Your task to perform on an android device: toggle data saver in the chrome app Image 0: 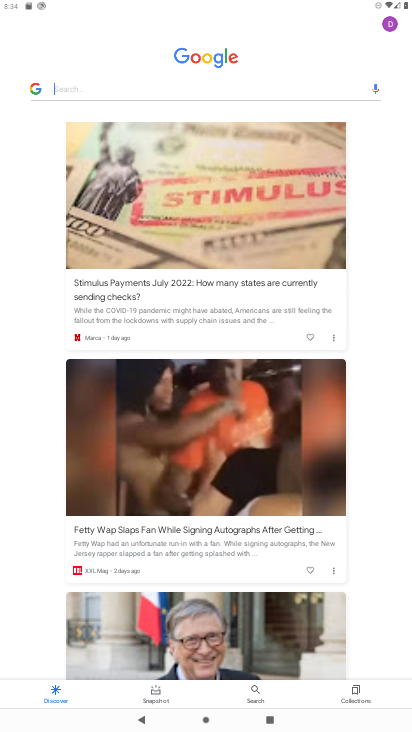
Step 0: drag from (230, 698) to (167, 159)
Your task to perform on an android device: toggle data saver in the chrome app Image 1: 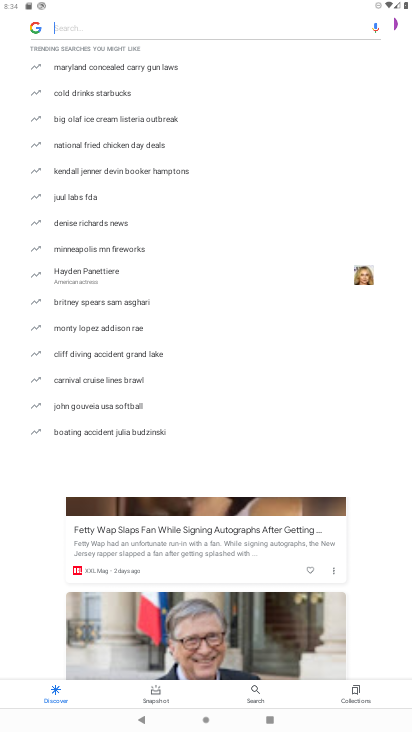
Step 1: press back button
Your task to perform on an android device: toggle data saver in the chrome app Image 2: 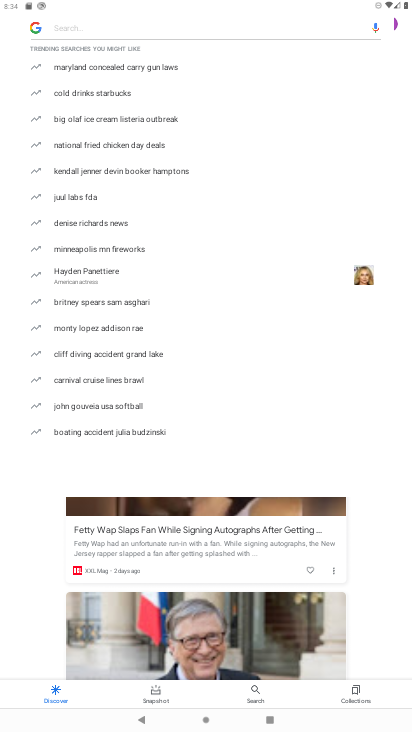
Step 2: press back button
Your task to perform on an android device: toggle data saver in the chrome app Image 3: 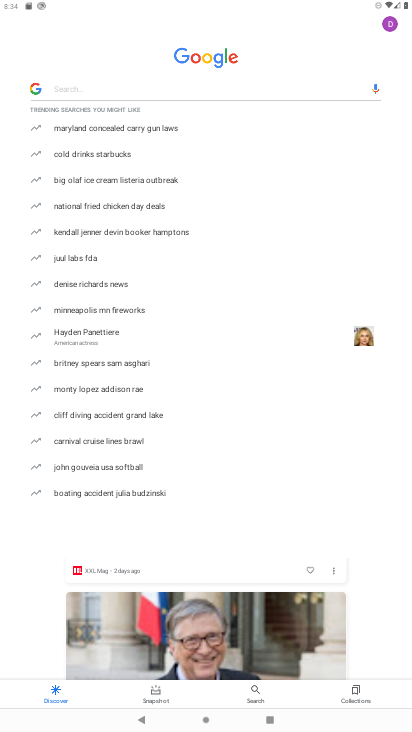
Step 3: press back button
Your task to perform on an android device: toggle data saver in the chrome app Image 4: 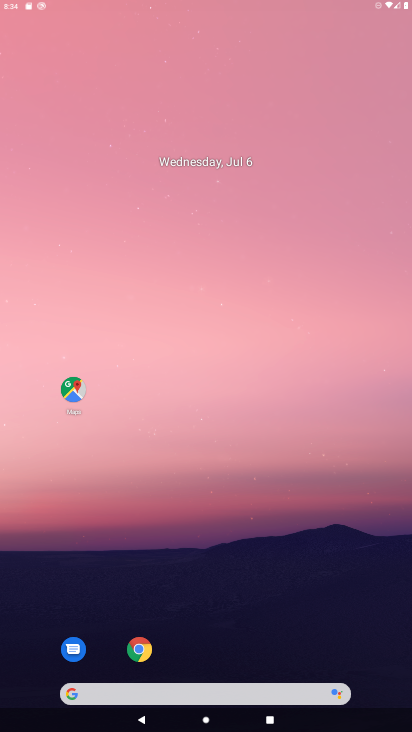
Step 4: press back button
Your task to perform on an android device: toggle data saver in the chrome app Image 5: 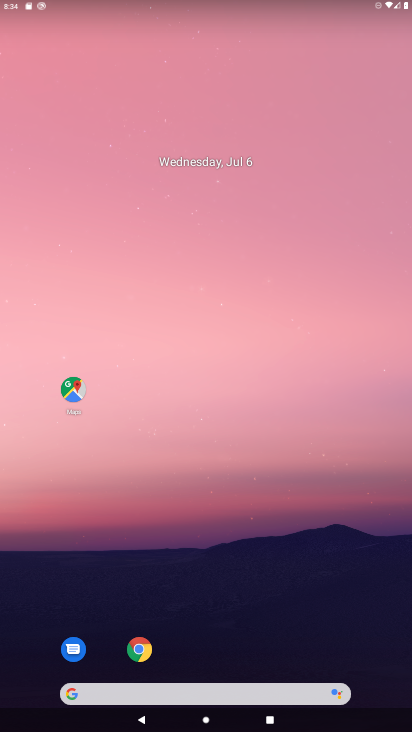
Step 5: drag from (263, 672) to (231, 95)
Your task to perform on an android device: toggle data saver in the chrome app Image 6: 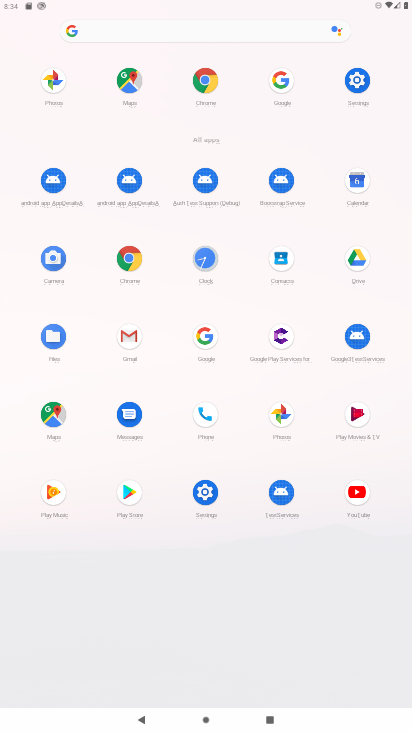
Step 6: click (210, 87)
Your task to perform on an android device: toggle data saver in the chrome app Image 7: 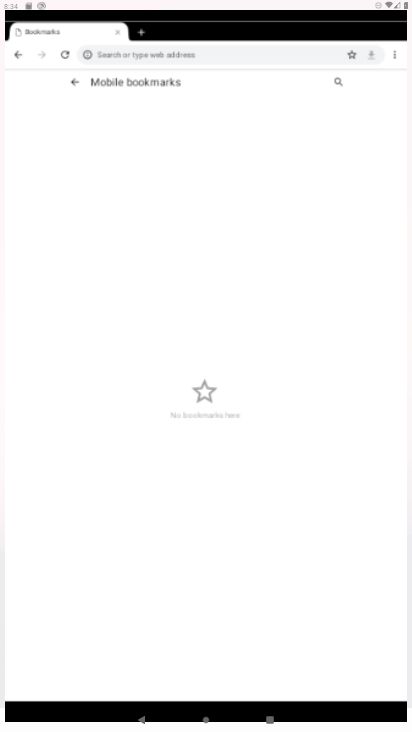
Step 7: click (210, 88)
Your task to perform on an android device: toggle data saver in the chrome app Image 8: 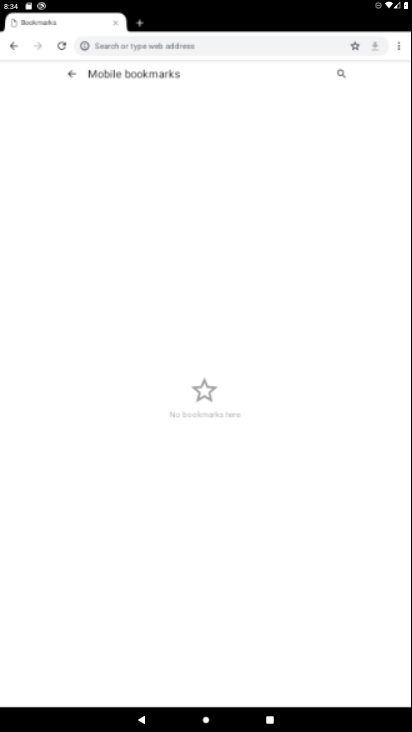
Step 8: click (210, 90)
Your task to perform on an android device: toggle data saver in the chrome app Image 9: 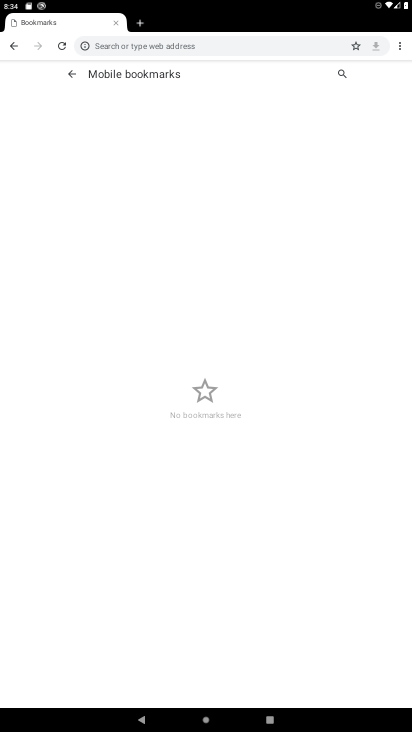
Step 9: click (14, 52)
Your task to perform on an android device: toggle data saver in the chrome app Image 10: 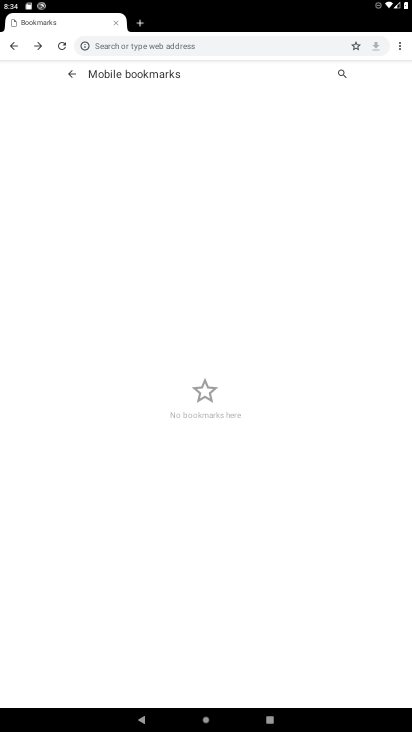
Step 10: click (18, 48)
Your task to perform on an android device: toggle data saver in the chrome app Image 11: 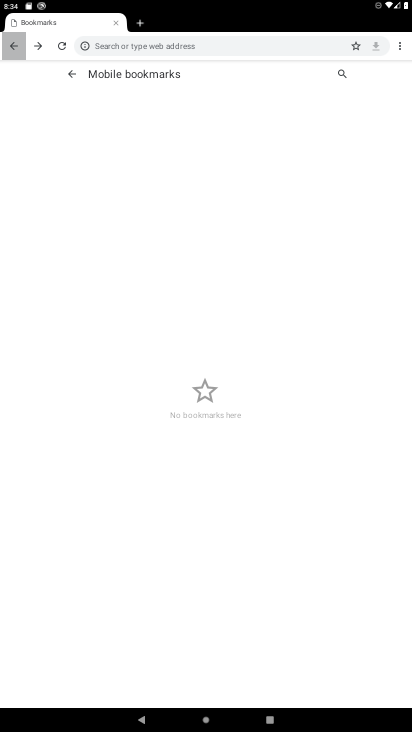
Step 11: click (18, 48)
Your task to perform on an android device: toggle data saver in the chrome app Image 12: 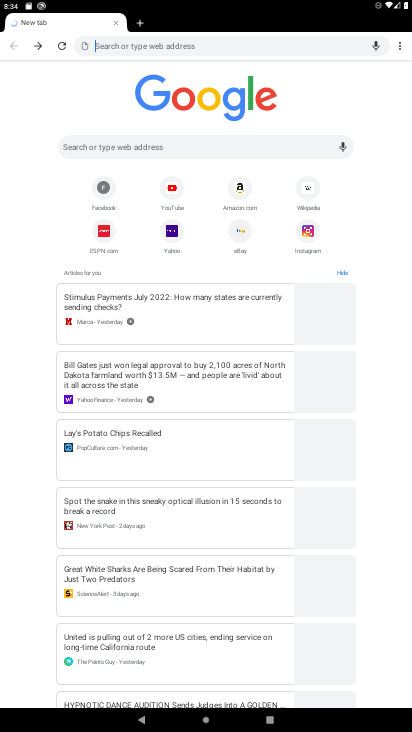
Step 12: click (18, 48)
Your task to perform on an android device: toggle data saver in the chrome app Image 13: 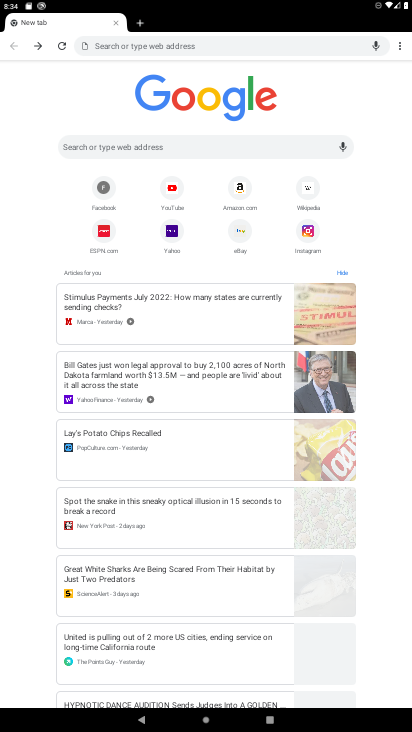
Step 13: click (18, 48)
Your task to perform on an android device: toggle data saver in the chrome app Image 14: 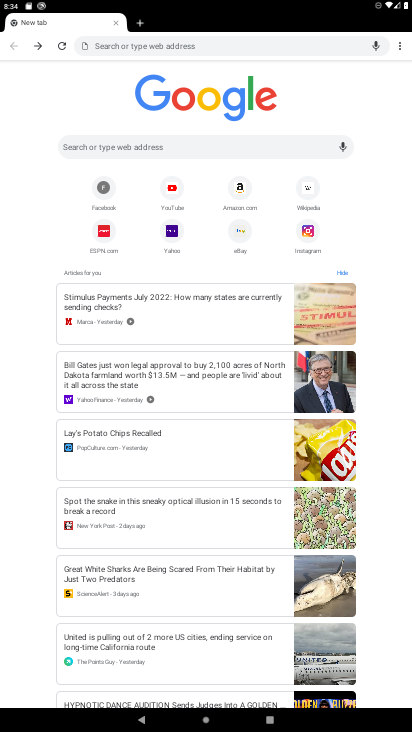
Step 14: click (399, 47)
Your task to perform on an android device: toggle data saver in the chrome app Image 15: 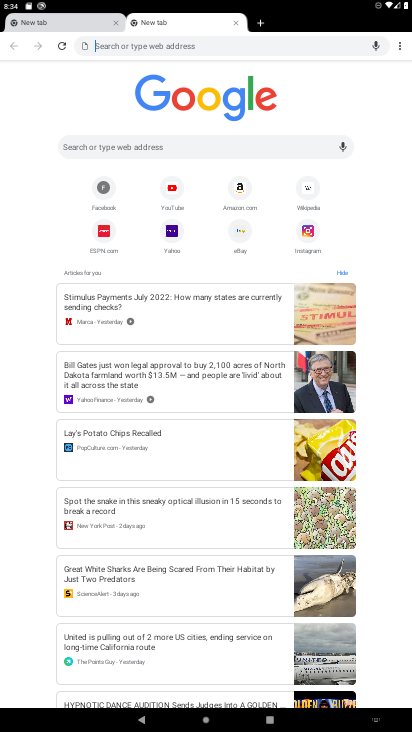
Step 15: click (399, 47)
Your task to perform on an android device: toggle data saver in the chrome app Image 16: 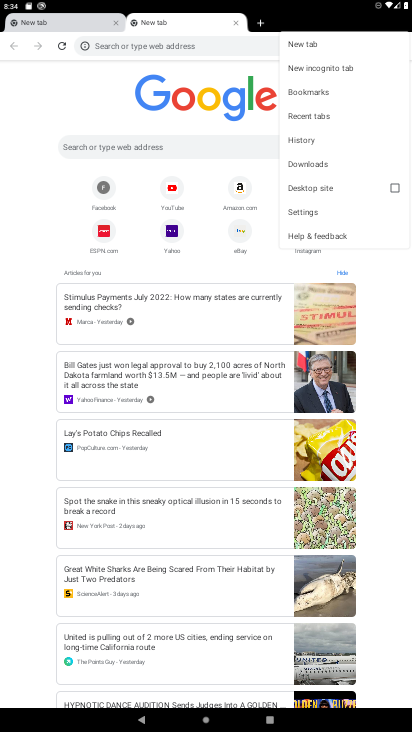
Step 16: drag from (399, 47) to (302, 211)
Your task to perform on an android device: toggle data saver in the chrome app Image 17: 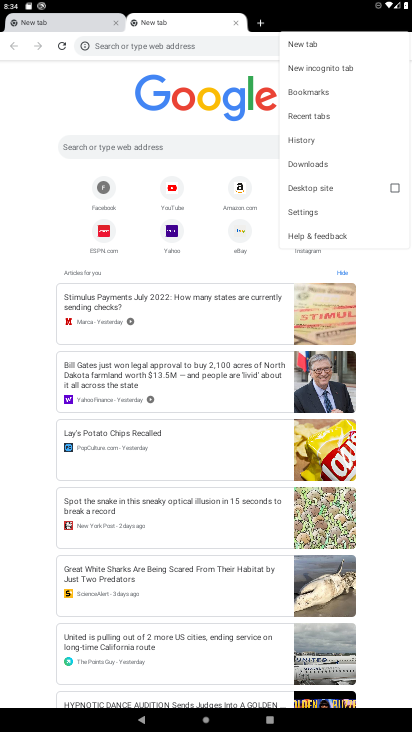
Step 17: click (302, 211)
Your task to perform on an android device: toggle data saver in the chrome app Image 18: 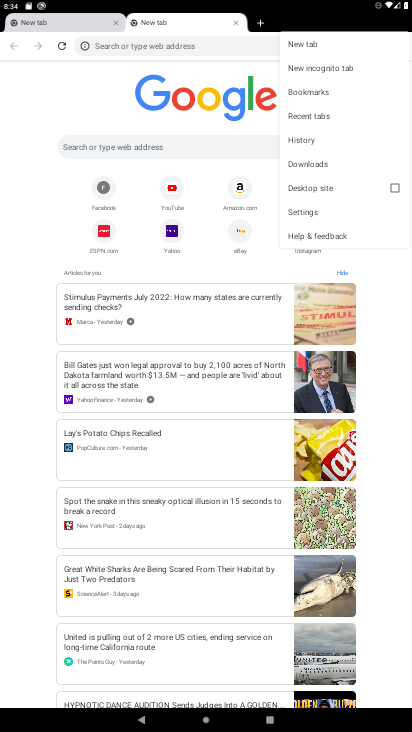
Step 18: click (302, 210)
Your task to perform on an android device: toggle data saver in the chrome app Image 19: 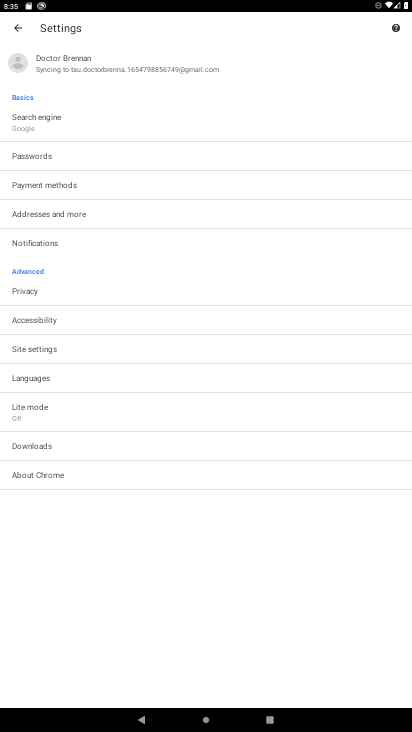
Step 19: click (41, 407)
Your task to perform on an android device: toggle data saver in the chrome app Image 20: 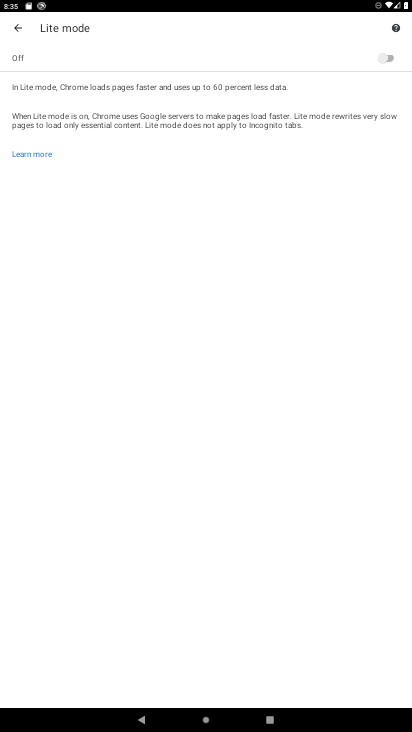
Step 20: click (383, 54)
Your task to perform on an android device: toggle data saver in the chrome app Image 21: 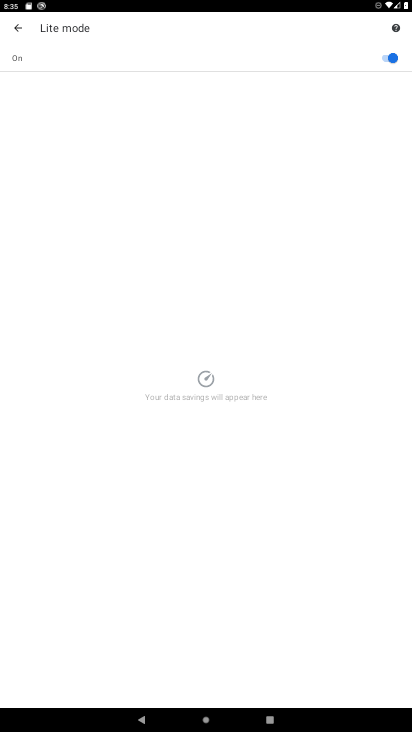
Step 21: task complete